Your task to perform on an android device: When is my next meeting? Image 0: 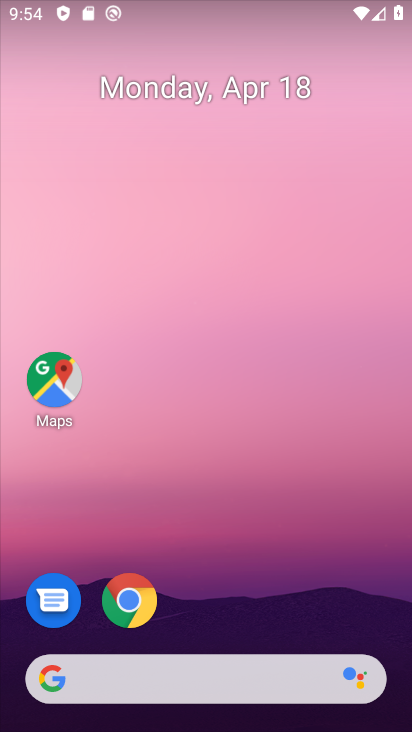
Step 0: drag from (217, 583) to (125, 69)
Your task to perform on an android device: When is my next meeting? Image 1: 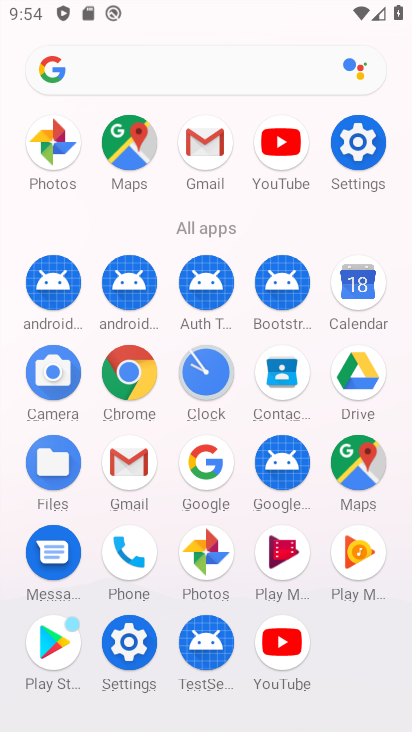
Step 1: click (347, 296)
Your task to perform on an android device: When is my next meeting? Image 2: 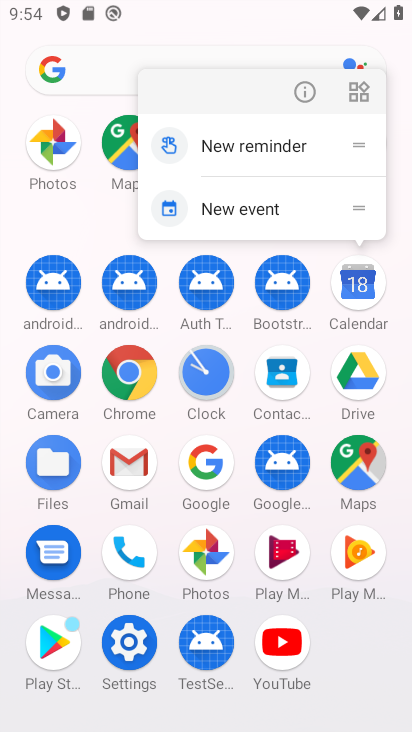
Step 2: click (369, 282)
Your task to perform on an android device: When is my next meeting? Image 3: 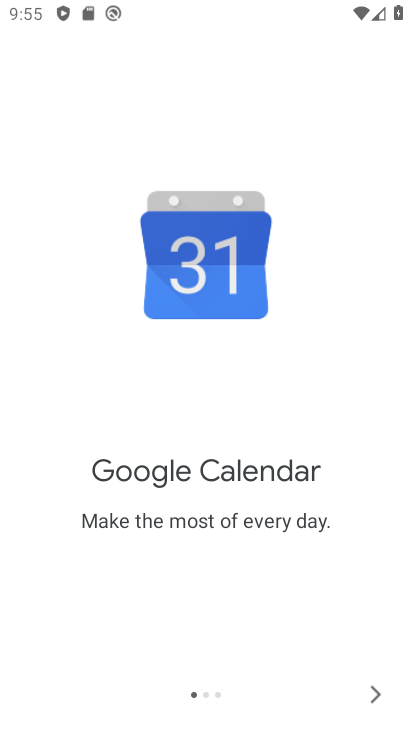
Step 3: click (376, 695)
Your task to perform on an android device: When is my next meeting? Image 4: 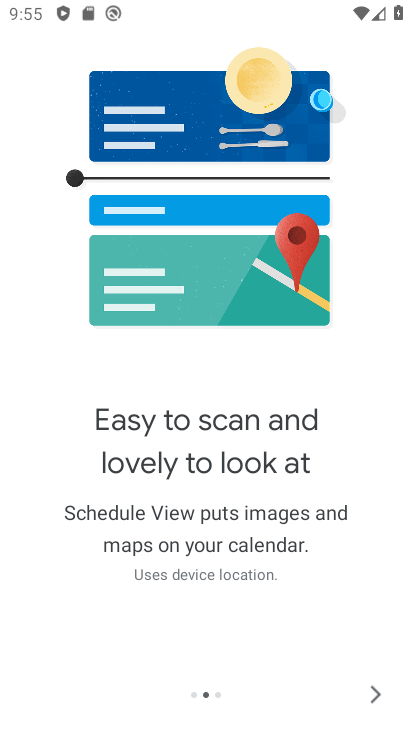
Step 4: click (358, 685)
Your task to perform on an android device: When is my next meeting? Image 5: 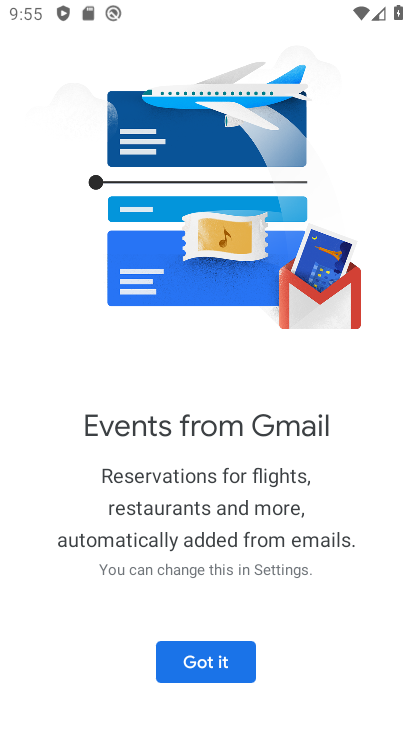
Step 5: click (177, 668)
Your task to perform on an android device: When is my next meeting? Image 6: 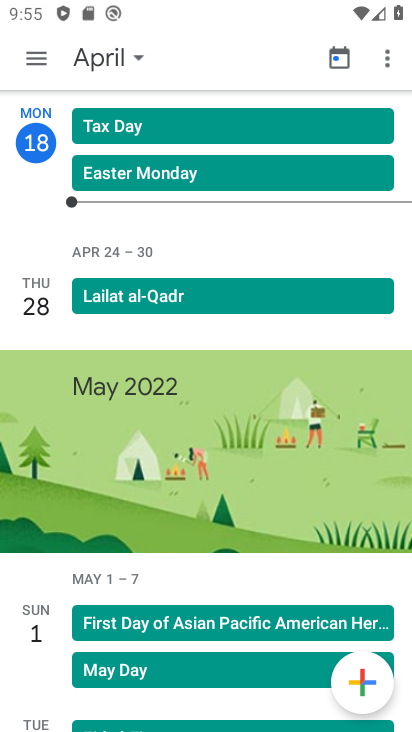
Step 6: click (32, 55)
Your task to perform on an android device: When is my next meeting? Image 7: 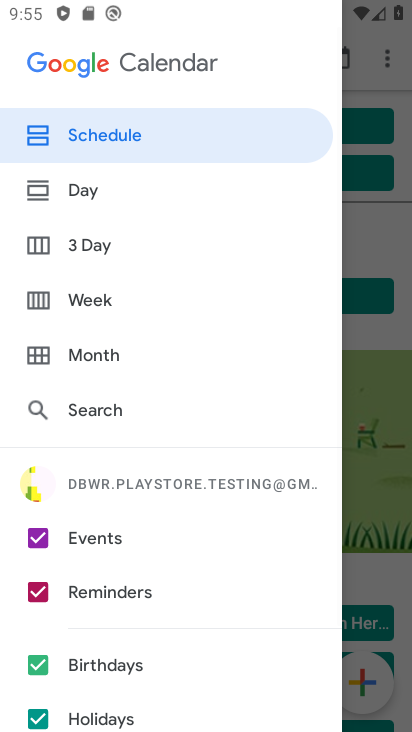
Step 7: click (95, 302)
Your task to perform on an android device: When is my next meeting? Image 8: 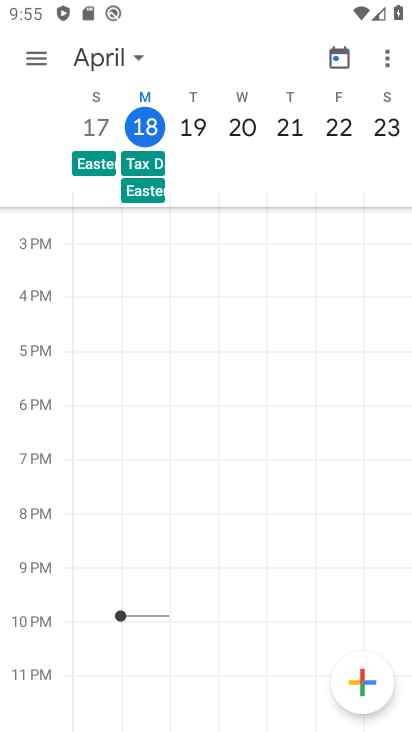
Step 8: task complete